Your task to perform on an android device: Open Android settings Image 0: 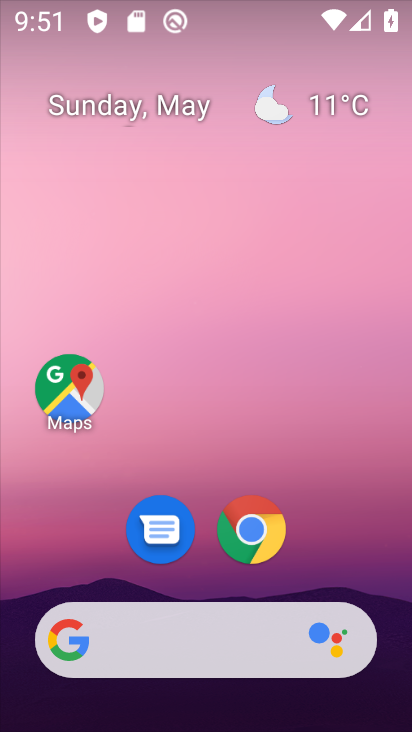
Step 0: click (265, 253)
Your task to perform on an android device: Open Android settings Image 1: 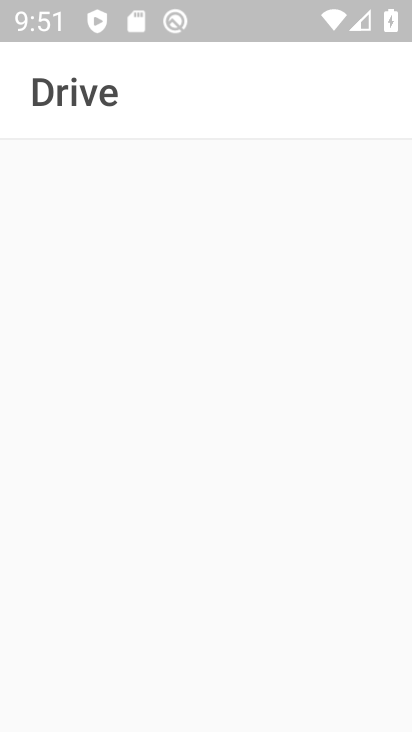
Step 1: drag from (222, 587) to (369, 272)
Your task to perform on an android device: Open Android settings Image 2: 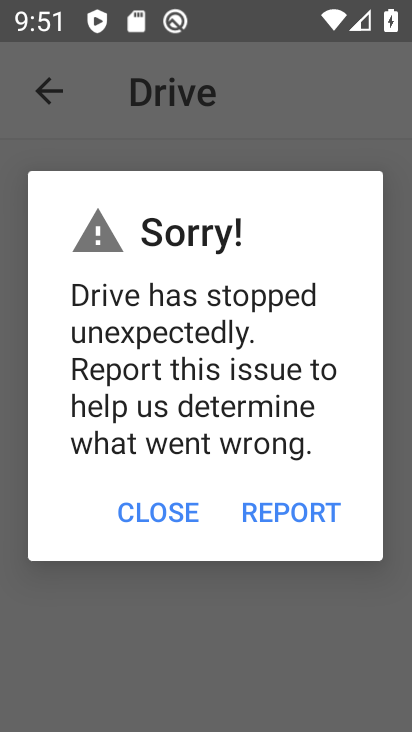
Step 2: press home button
Your task to perform on an android device: Open Android settings Image 3: 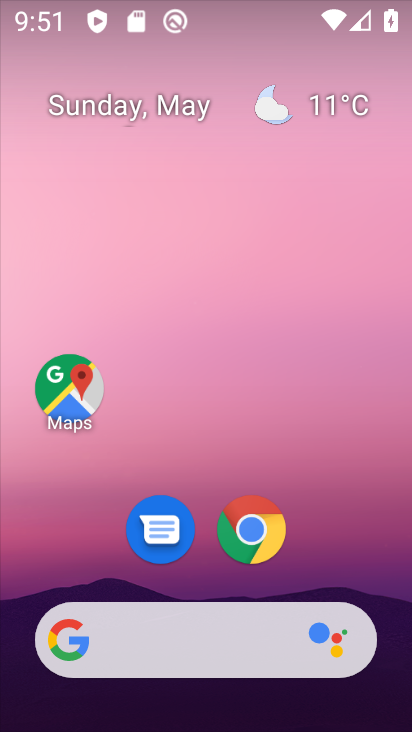
Step 3: drag from (185, 597) to (266, 288)
Your task to perform on an android device: Open Android settings Image 4: 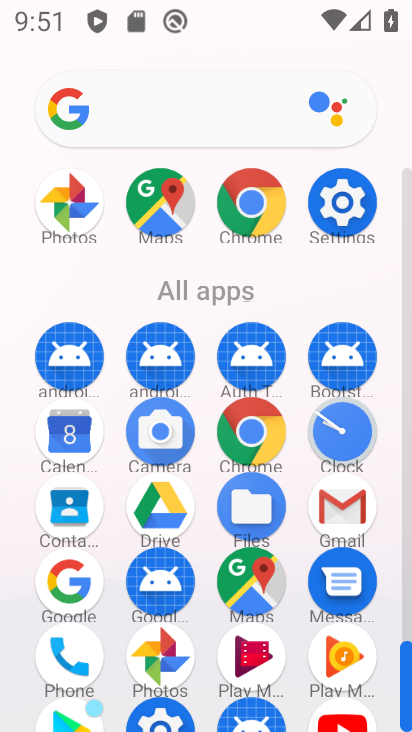
Step 4: drag from (225, 626) to (289, 373)
Your task to perform on an android device: Open Android settings Image 5: 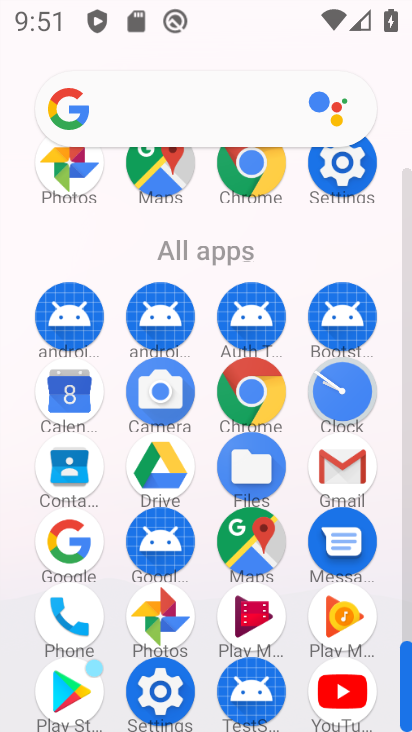
Step 5: click (156, 706)
Your task to perform on an android device: Open Android settings Image 6: 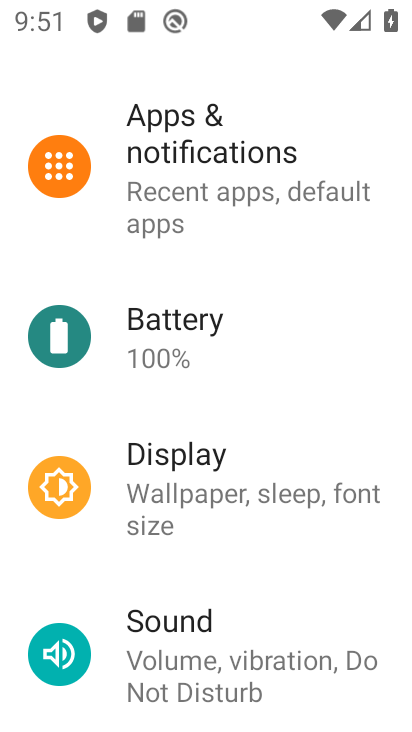
Step 6: task complete